Your task to perform on an android device: refresh tabs in the chrome app Image 0: 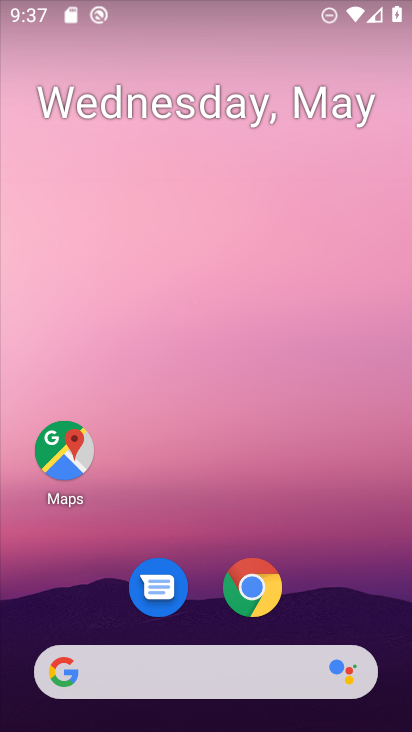
Step 0: click (257, 585)
Your task to perform on an android device: refresh tabs in the chrome app Image 1: 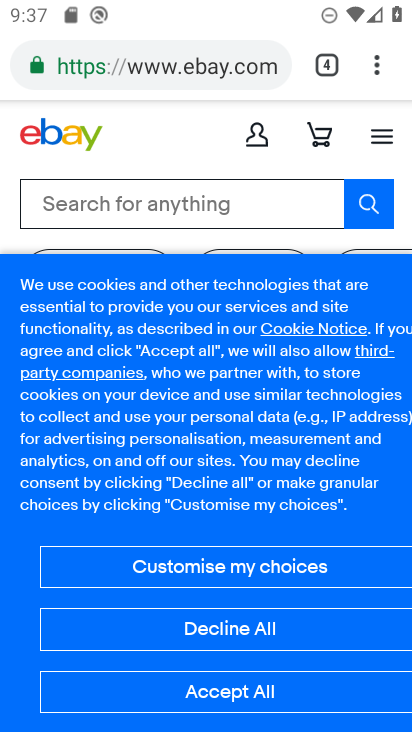
Step 1: click (376, 72)
Your task to perform on an android device: refresh tabs in the chrome app Image 2: 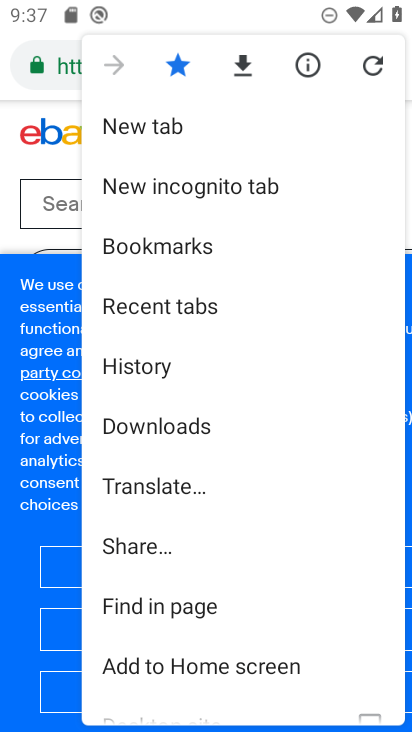
Step 2: click (373, 62)
Your task to perform on an android device: refresh tabs in the chrome app Image 3: 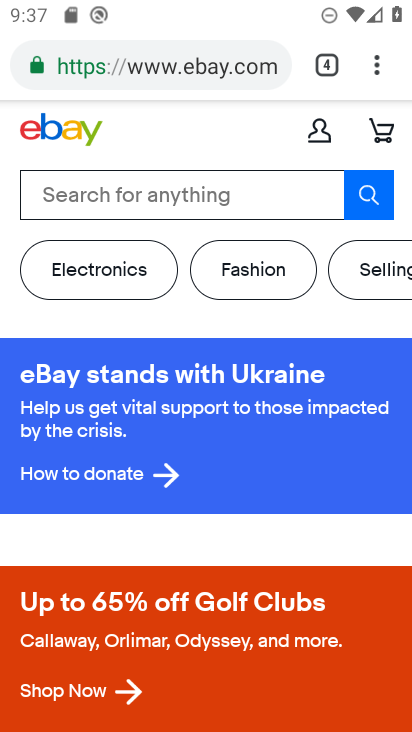
Step 3: task complete